Your task to perform on an android device: Play the last video I watched on Youtube Image 0: 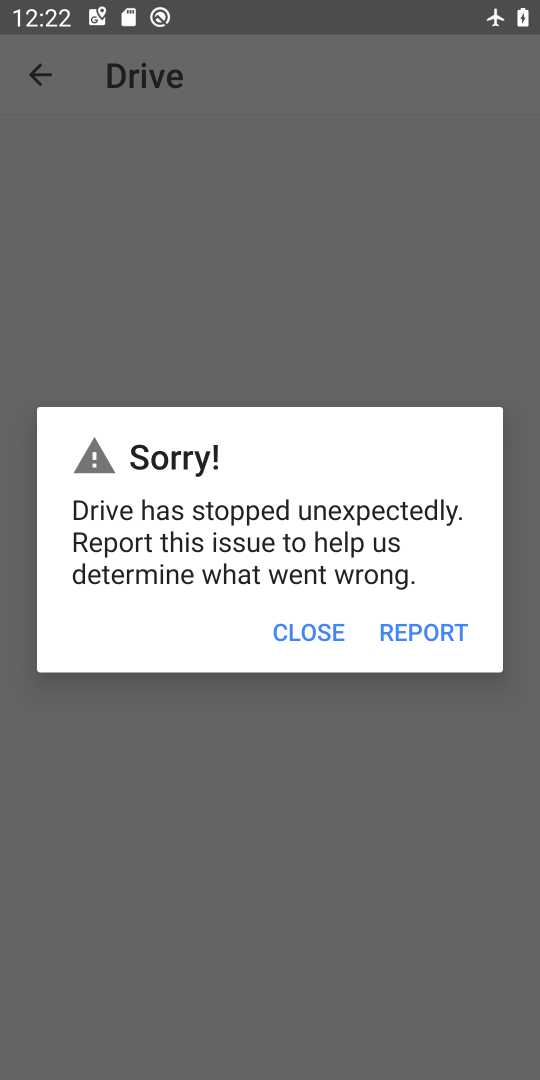
Step 0: press home button
Your task to perform on an android device: Play the last video I watched on Youtube Image 1: 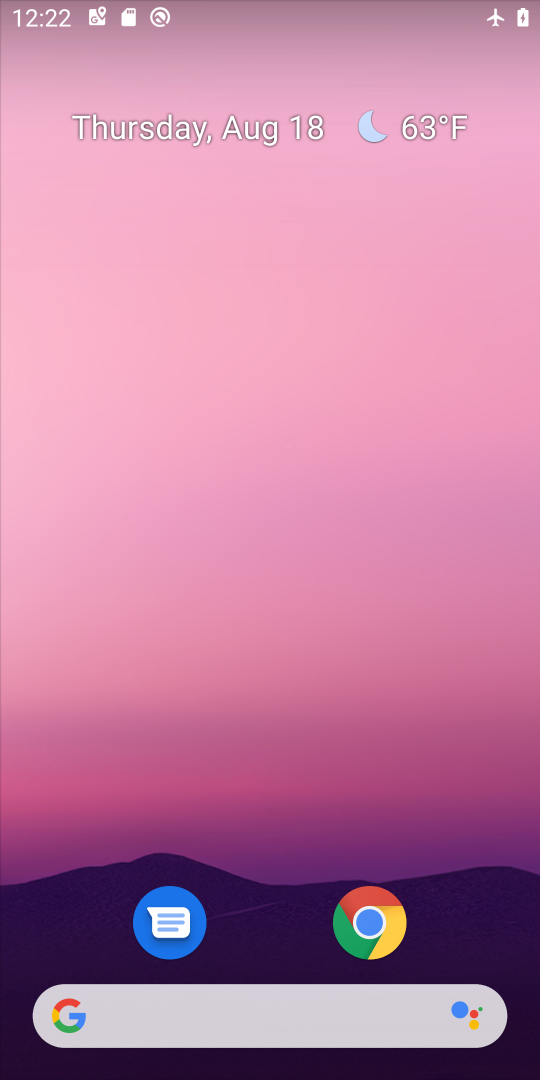
Step 1: drag from (271, 918) to (249, 192)
Your task to perform on an android device: Play the last video I watched on Youtube Image 2: 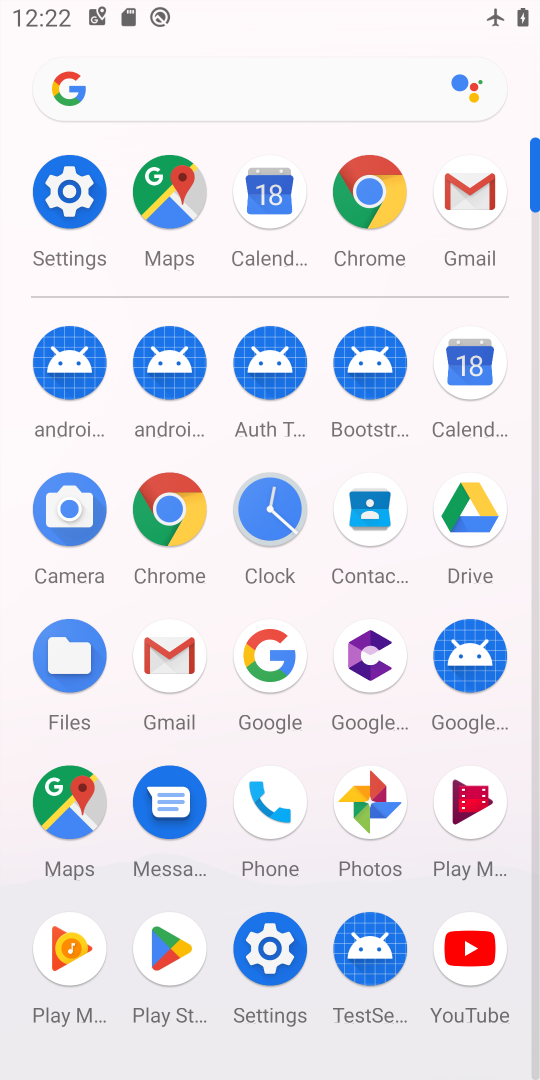
Step 2: click (475, 953)
Your task to perform on an android device: Play the last video I watched on Youtube Image 3: 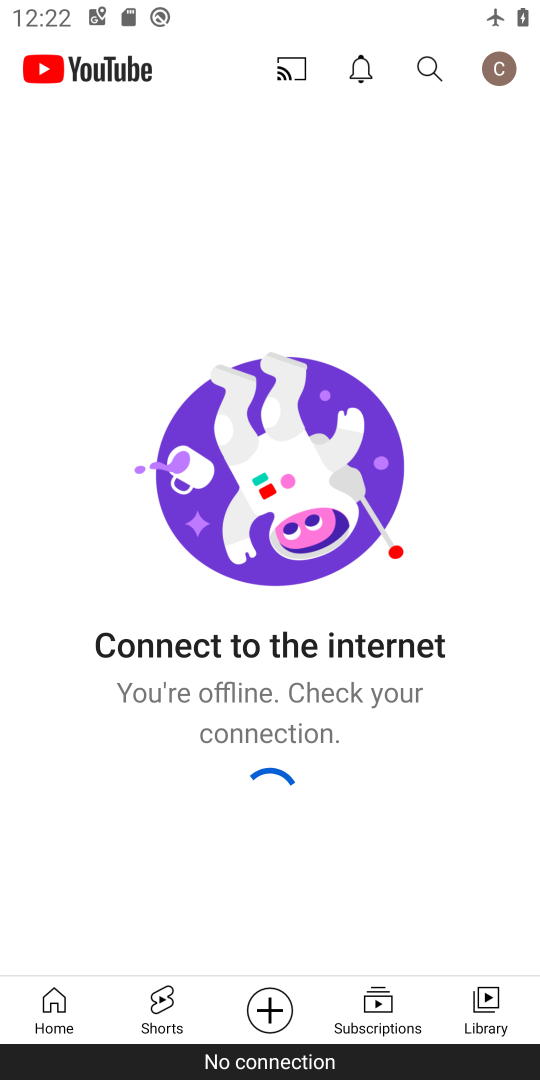
Step 3: click (485, 1008)
Your task to perform on an android device: Play the last video I watched on Youtube Image 4: 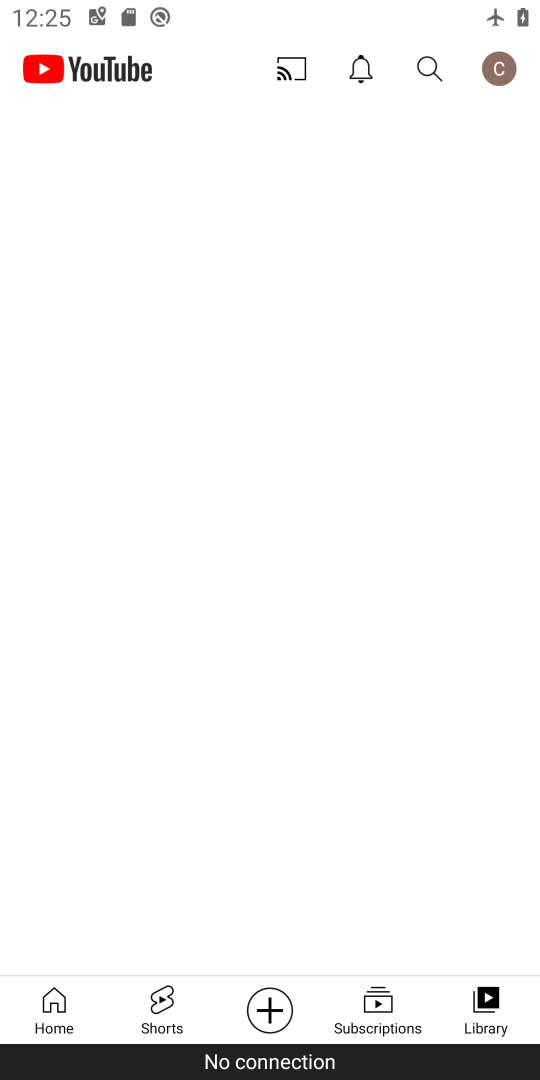
Step 4: task complete